Your task to perform on an android device: Go to Maps Image 0: 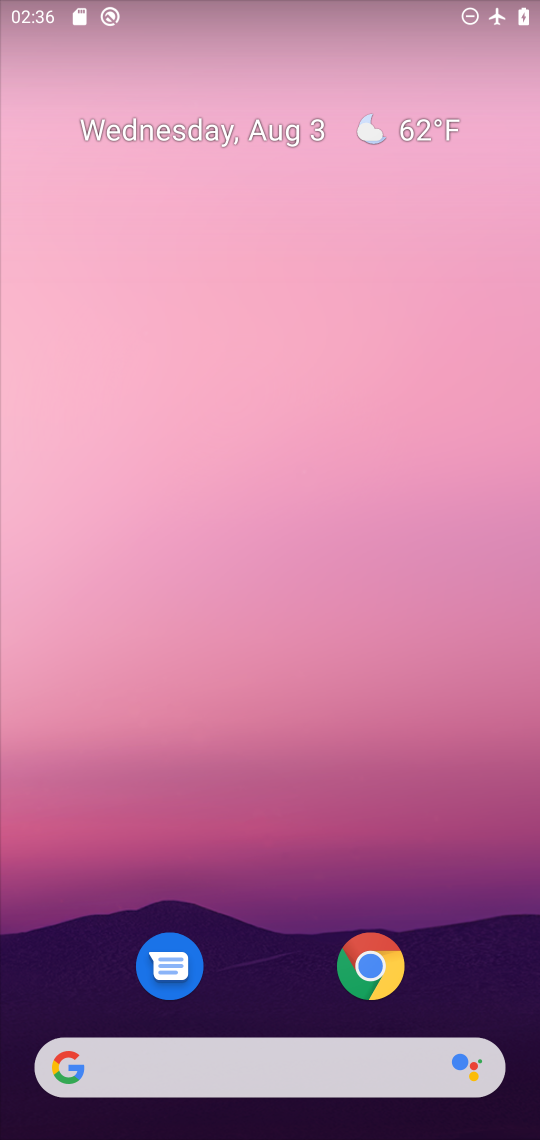
Step 0: press back button
Your task to perform on an android device: Go to Maps Image 1: 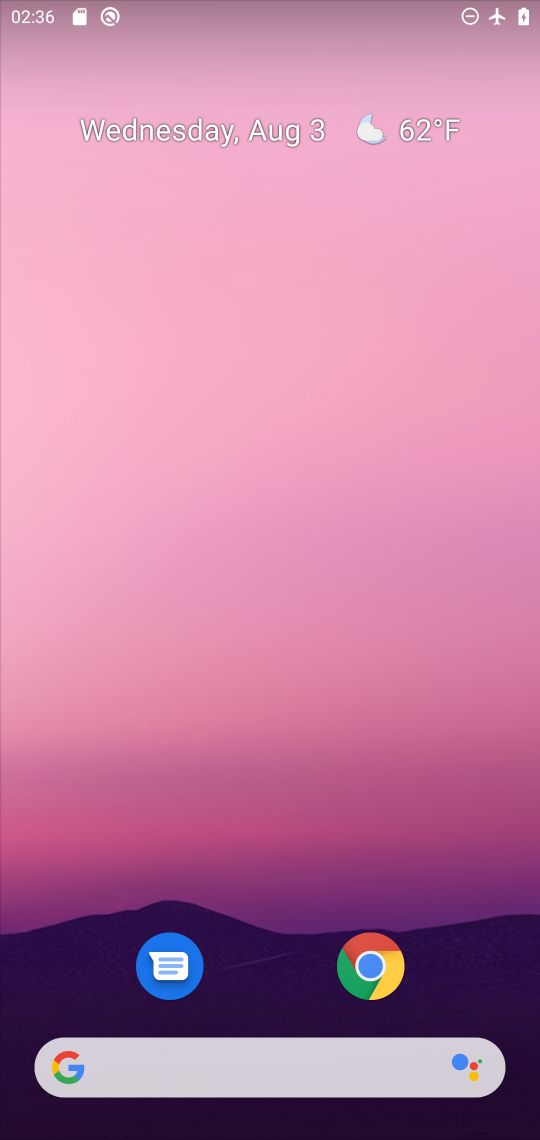
Step 1: press back button
Your task to perform on an android device: Go to Maps Image 2: 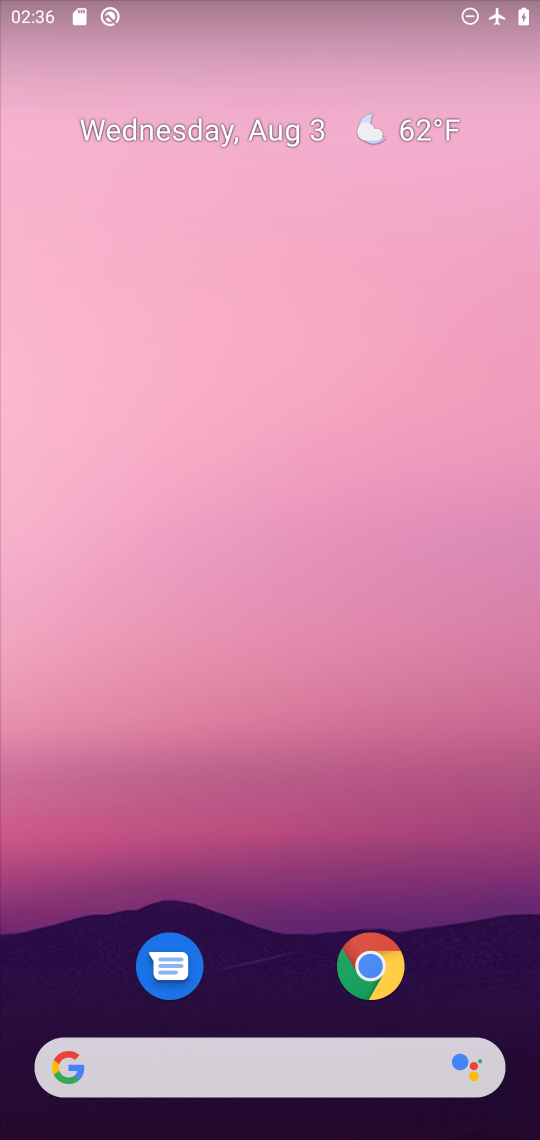
Step 2: click (274, 507)
Your task to perform on an android device: Go to Maps Image 3: 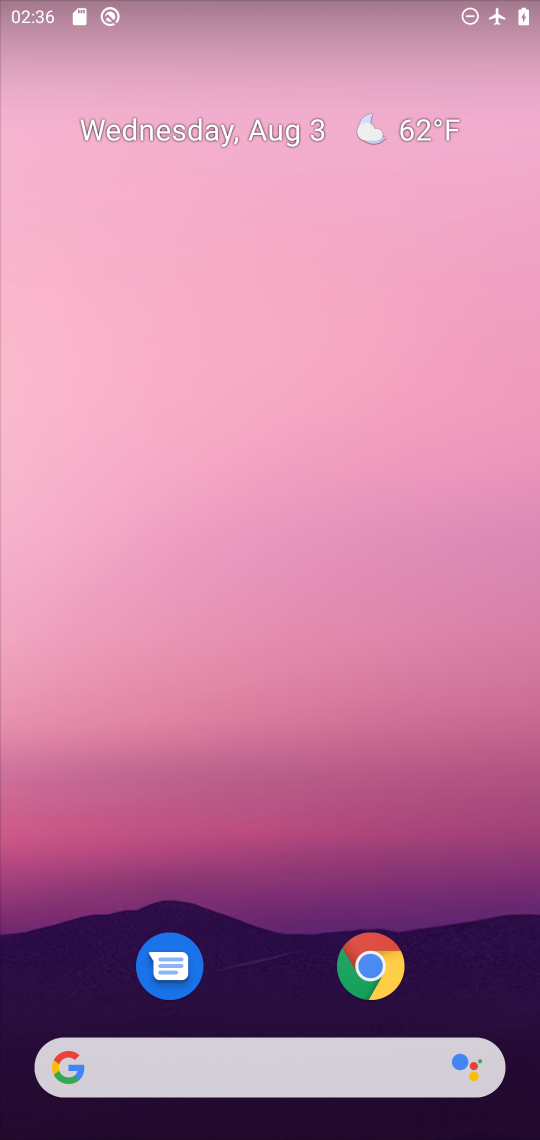
Step 3: drag from (293, 966) to (259, 371)
Your task to perform on an android device: Go to Maps Image 4: 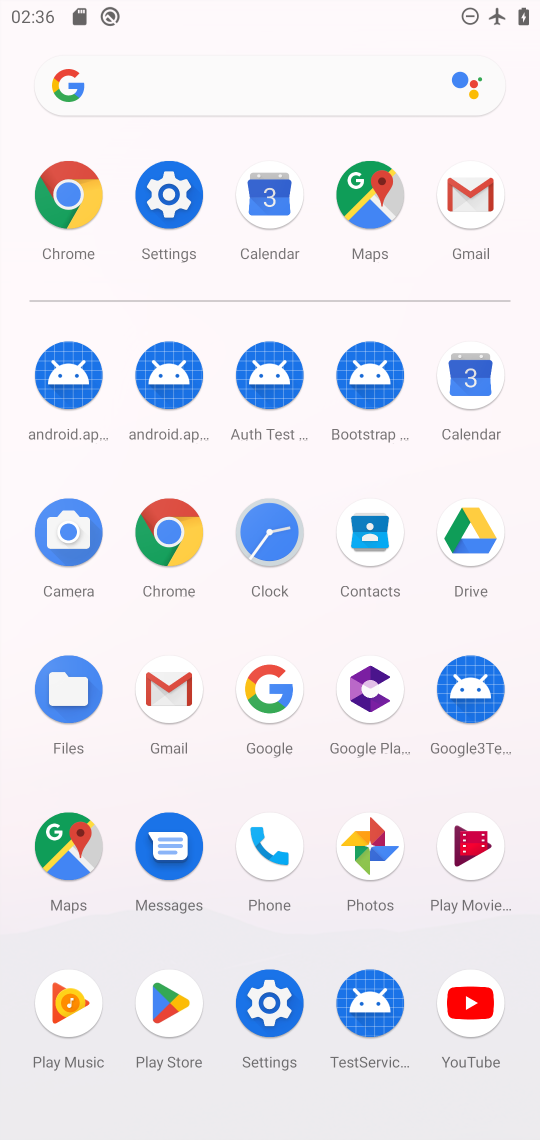
Step 4: click (363, 214)
Your task to perform on an android device: Go to Maps Image 5: 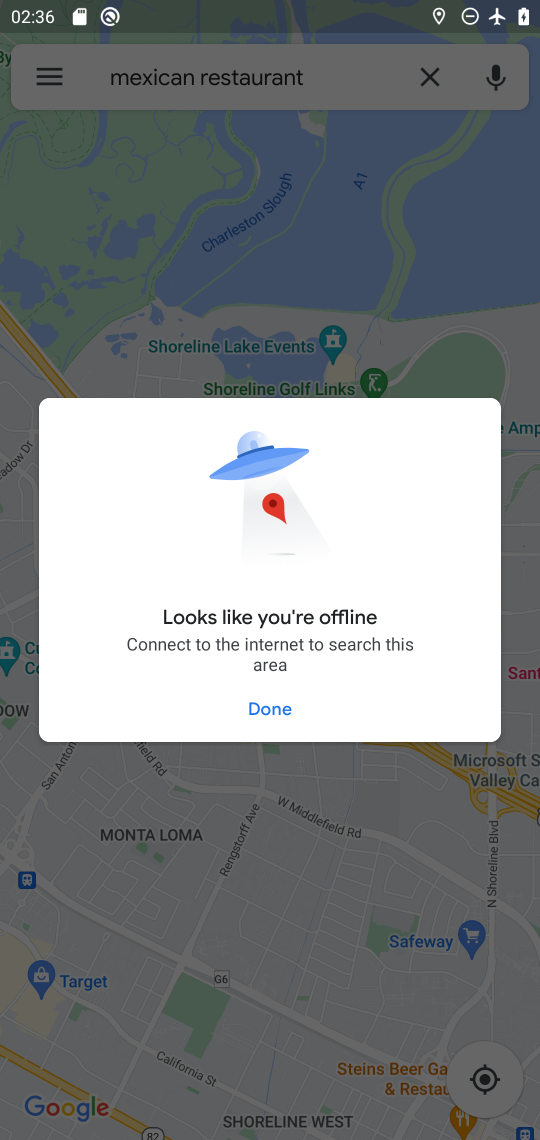
Step 5: task complete